Your task to perform on an android device: Go to privacy settings Image 0: 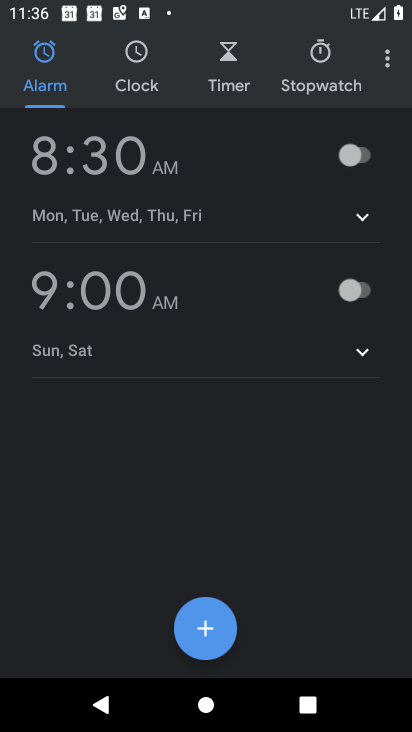
Step 0: press home button
Your task to perform on an android device: Go to privacy settings Image 1: 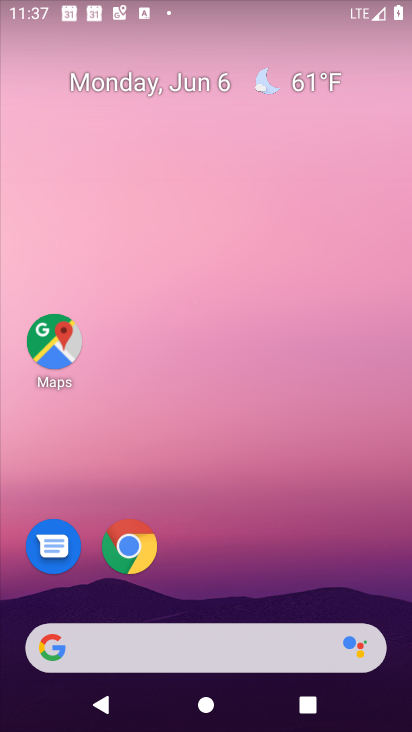
Step 1: drag from (389, 621) to (326, 132)
Your task to perform on an android device: Go to privacy settings Image 2: 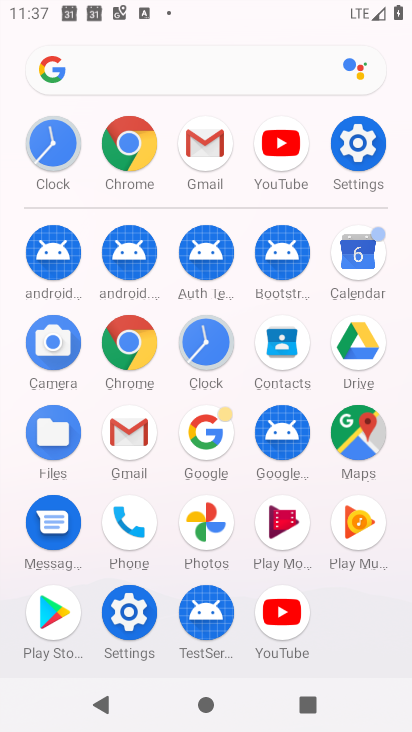
Step 2: click (126, 613)
Your task to perform on an android device: Go to privacy settings Image 3: 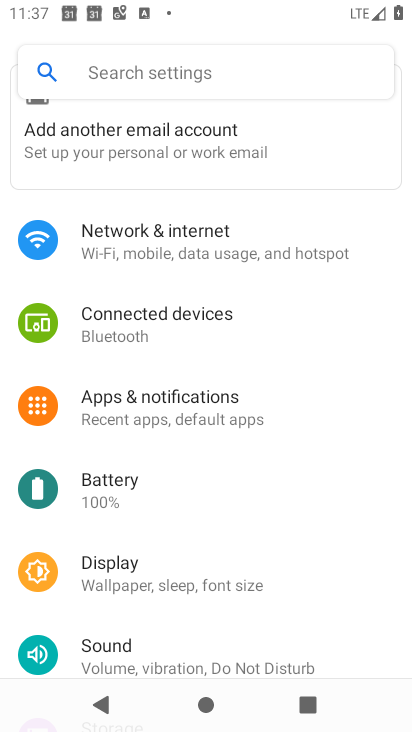
Step 3: drag from (236, 568) to (264, 41)
Your task to perform on an android device: Go to privacy settings Image 4: 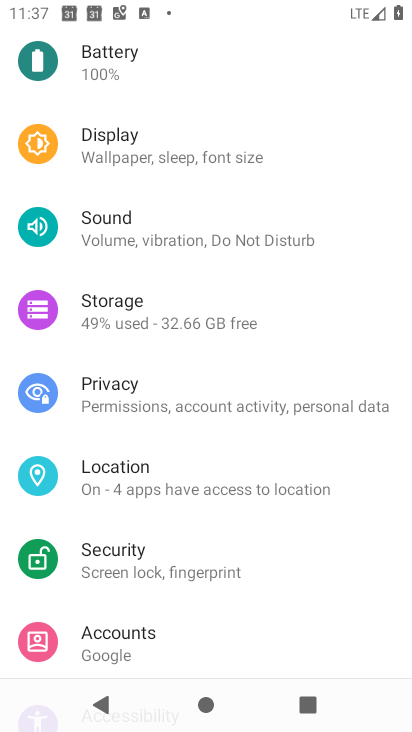
Step 4: click (124, 396)
Your task to perform on an android device: Go to privacy settings Image 5: 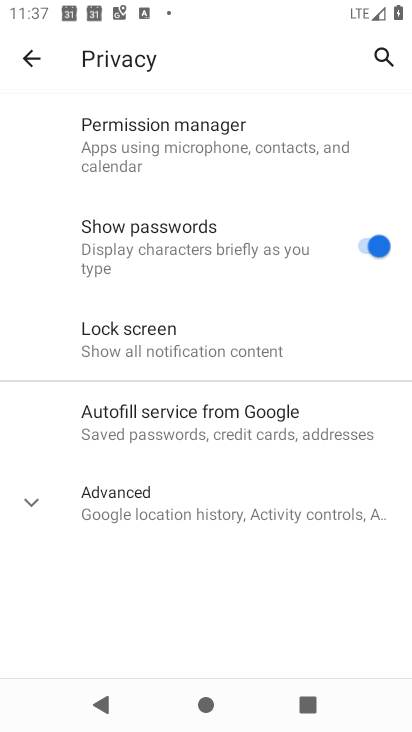
Step 5: click (26, 508)
Your task to perform on an android device: Go to privacy settings Image 6: 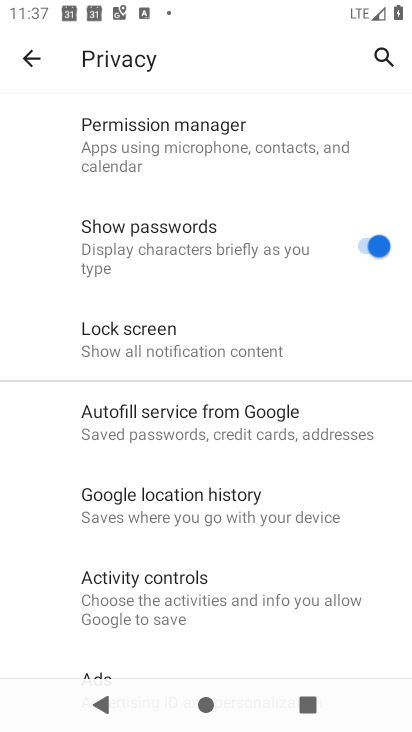
Step 6: task complete